Your task to perform on an android device: turn off wifi Image 0: 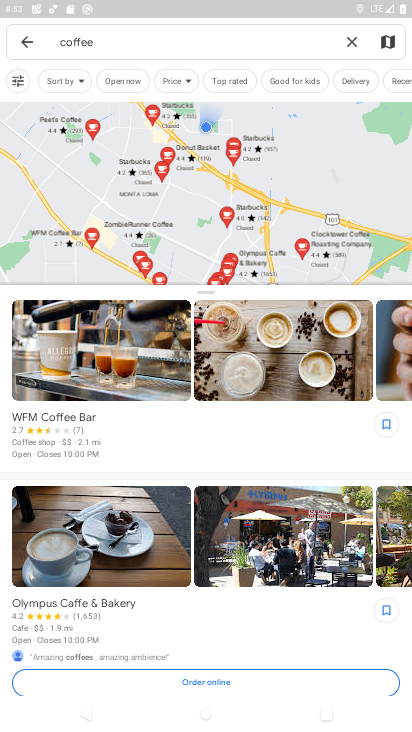
Step 0: press home button
Your task to perform on an android device: turn off wifi Image 1: 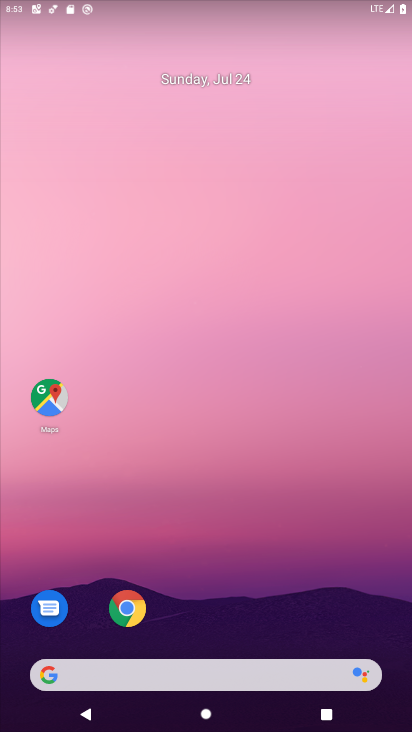
Step 1: drag from (274, 538) to (273, 276)
Your task to perform on an android device: turn off wifi Image 2: 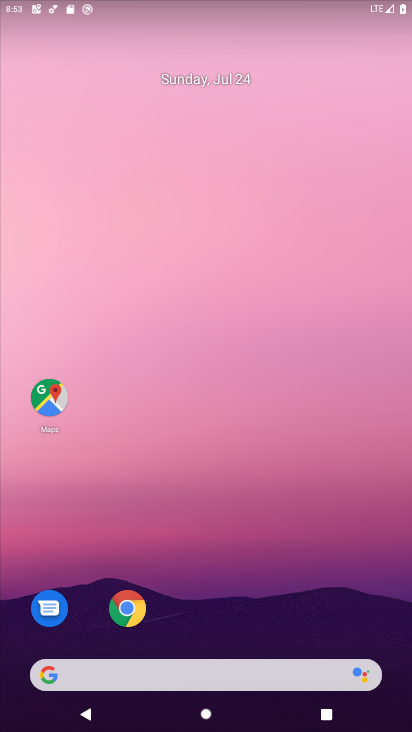
Step 2: drag from (277, 552) to (202, 31)
Your task to perform on an android device: turn off wifi Image 3: 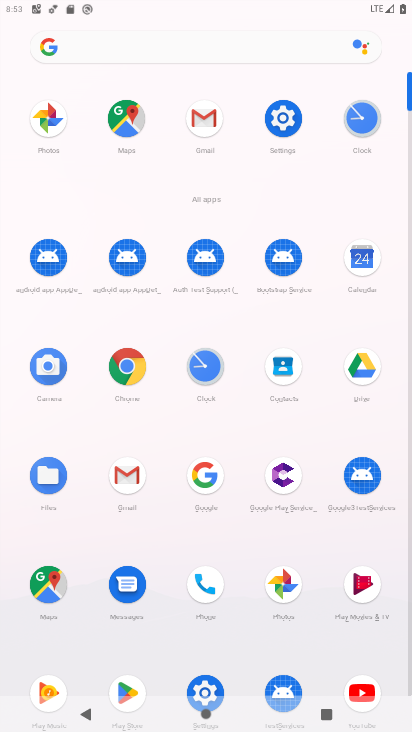
Step 3: click (277, 107)
Your task to perform on an android device: turn off wifi Image 4: 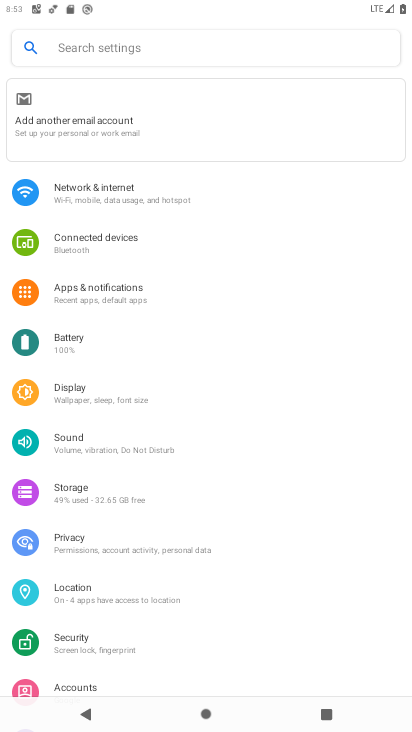
Step 4: click (118, 197)
Your task to perform on an android device: turn off wifi Image 5: 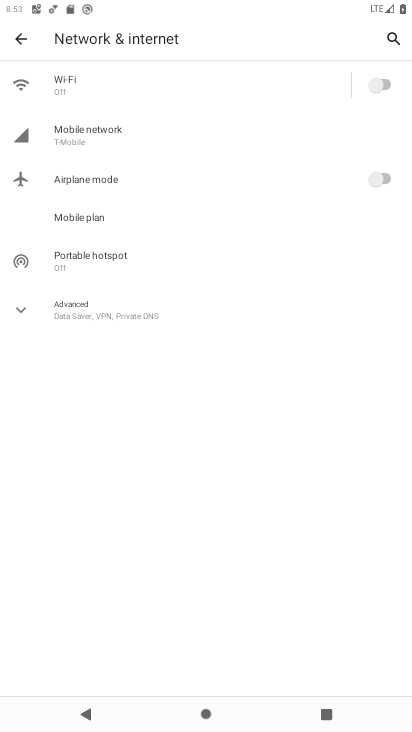
Step 5: task complete